Your task to perform on an android device: open chrome and create a bookmark for the current page Image 0: 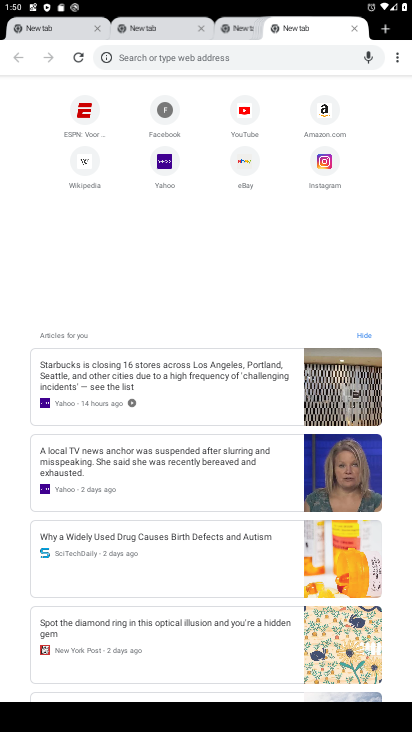
Step 0: click (164, 708)
Your task to perform on an android device: open chrome and create a bookmark for the current page Image 1: 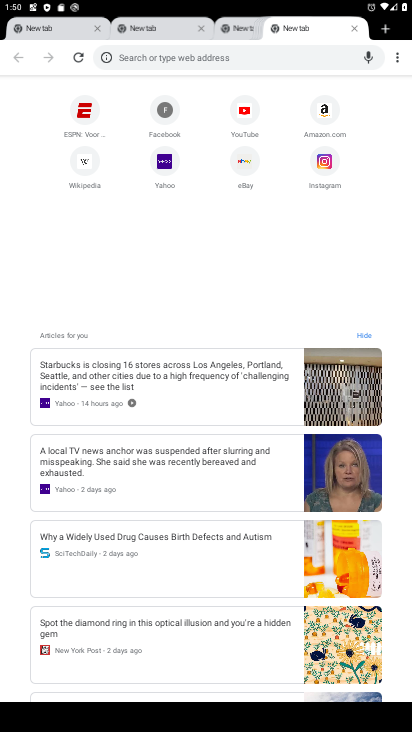
Step 1: click (401, 55)
Your task to perform on an android device: open chrome and create a bookmark for the current page Image 2: 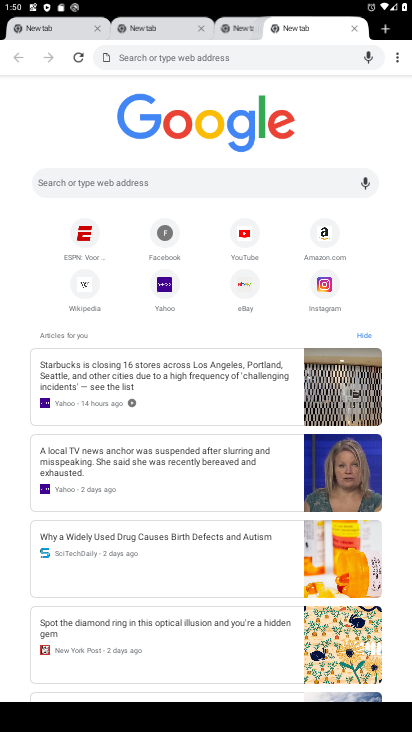
Step 2: click (392, 56)
Your task to perform on an android device: open chrome and create a bookmark for the current page Image 3: 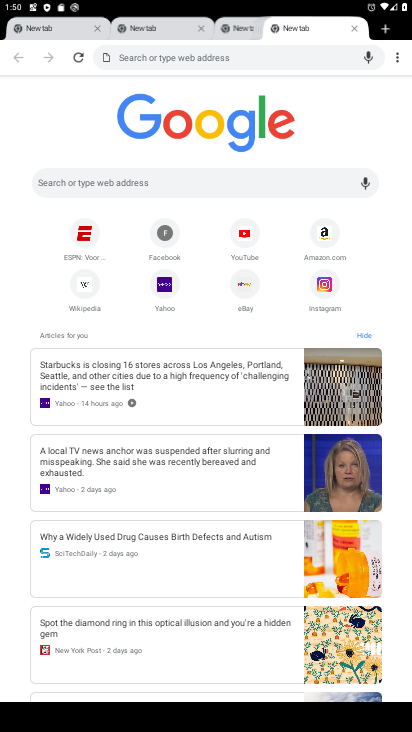
Step 3: task complete